Your task to perform on an android device: Open the phone app and click the voicemail tab. Image 0: 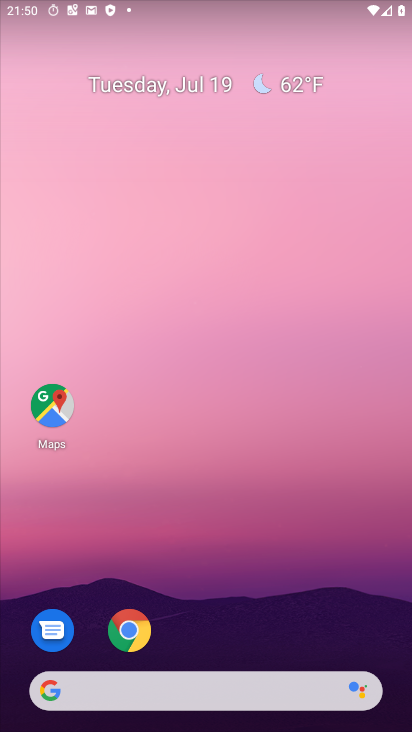
Step 0: drag from (43, 668) to (327, 204)
Your task to perform on an android device: Open the phone app and click the voicemail tab. Image 1: 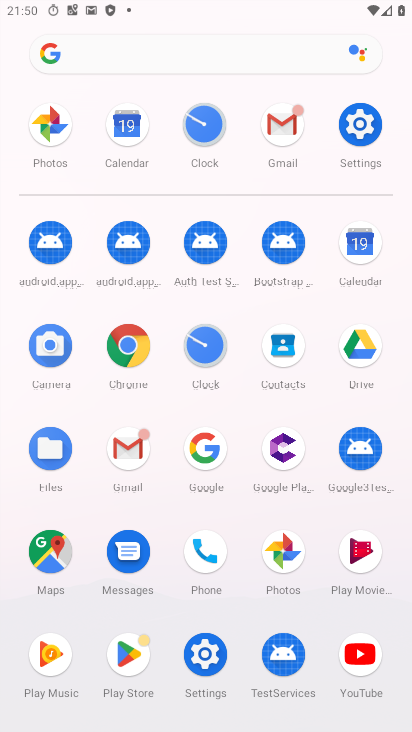
Step 1: click (211, 549)
Your task to perform on an android device: Open the phone app and click the voicemail tab. Image 2: 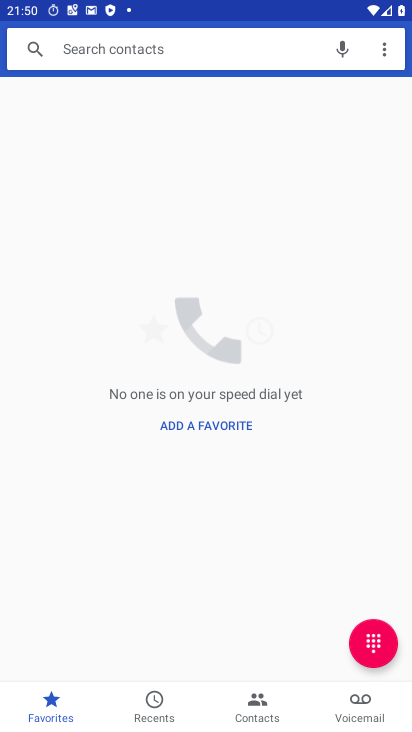
Step 2: click (364, 697)
Your task to perform on an android device: Open the phone app and click the voicemail tab. Image 3: 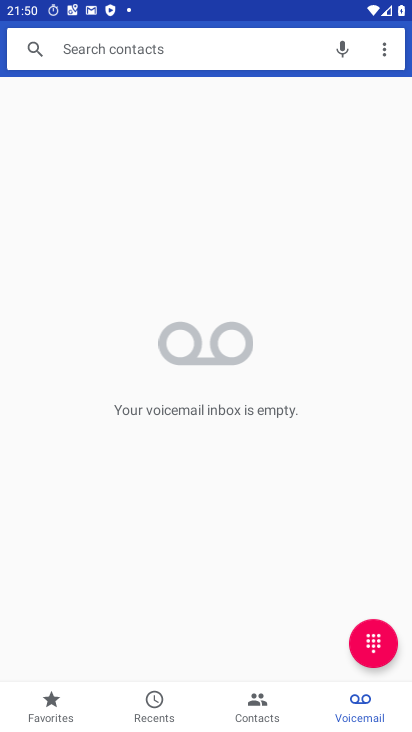
Step 3: task complete